Your task to perform on an android device: check android version Image 0: 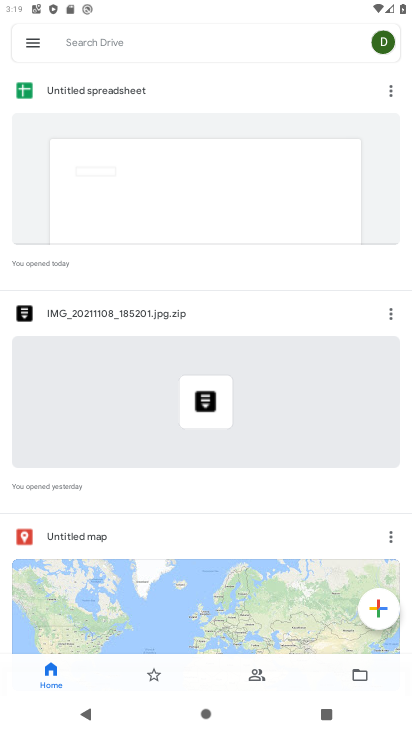
Step 0: press home button
Your task to perform on an android device: check android version Image 1: 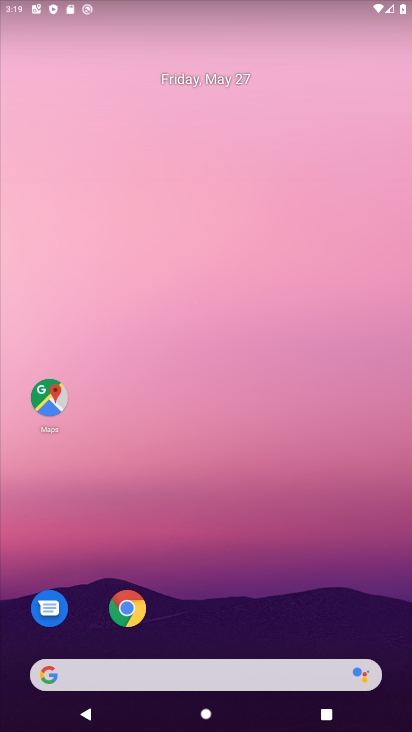
Step 1: drag from (172, 651) to (145, 291)
Your task to perform on an android device: check android version Image 2: 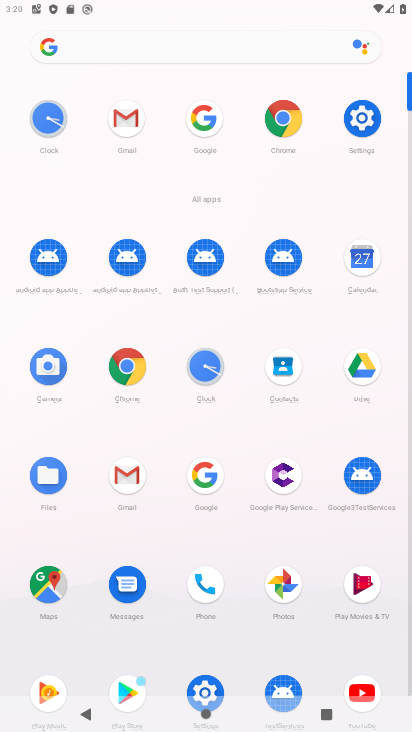
Step 2: click (212, 481)
Your task to perform on an android device: check android version Image 3: 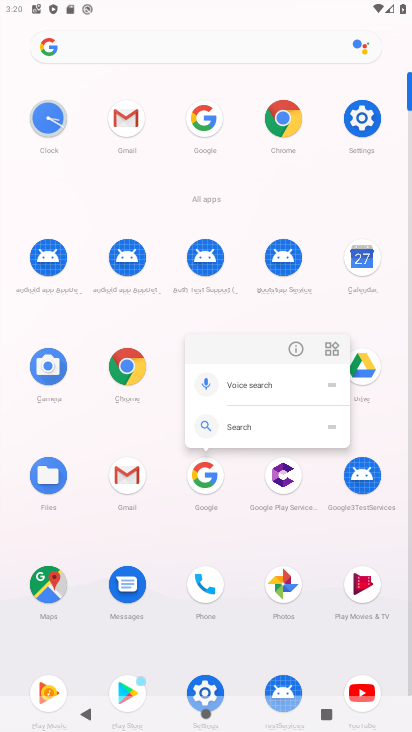
Step 3: click (291, 348)
Your task to perform on an android device: check android version Image 4: 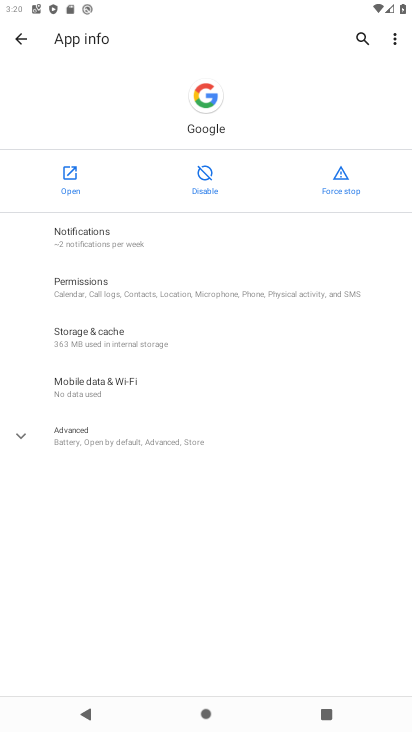
Step 4: click (132, 436)
Your task to perform on an android device: check android version Image 5: 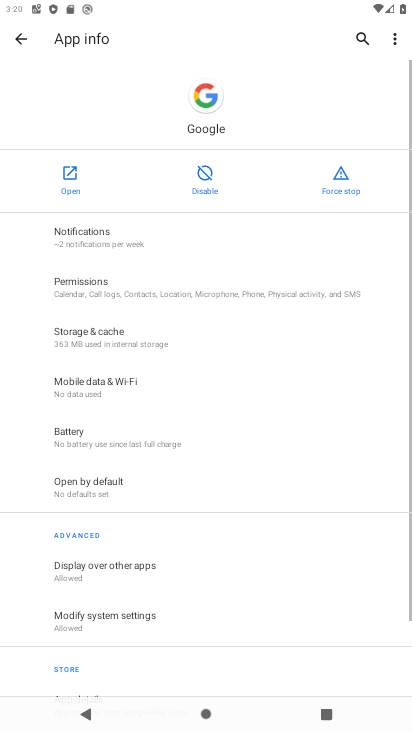
Step 5: task complete